Your task to perform on an android device: Set an alarm for 12pm Image 0: 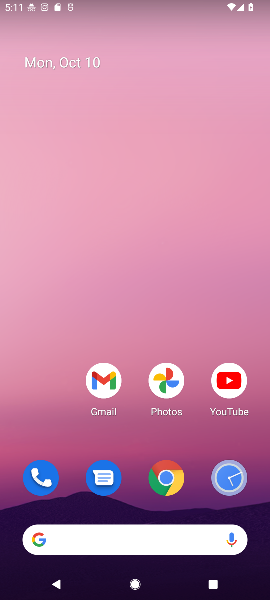
Step 0: drag from (135, 514) to (239, 470)
Your task to perform on an android device: Set an alarm for 12pm Image 1: 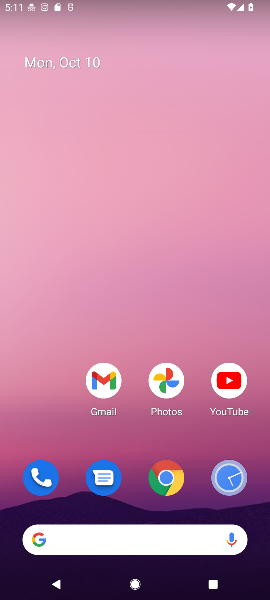
Step 1: click (239, 470)
Your task to perform on an android device: Set an alarm for 12pm Image 2: 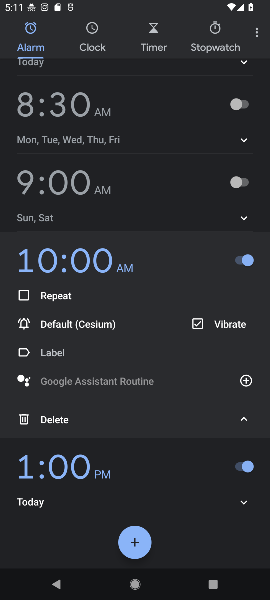
Step 2: click (140, 539)
Your task to perform on an android device: Set an alarm for 12pm Image 3: 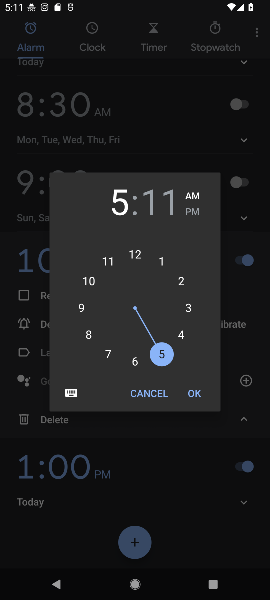
Step 3: click (135, 249)
Your task to perform on an android device: Set an alarm for 12pm Image 4: 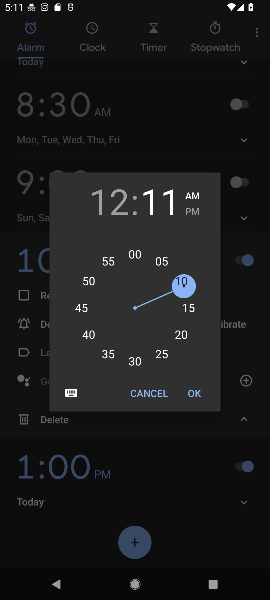
Step 4: click (135, 249)
Your task to perform on an android device: Set an alarm for 12pm Image 5: 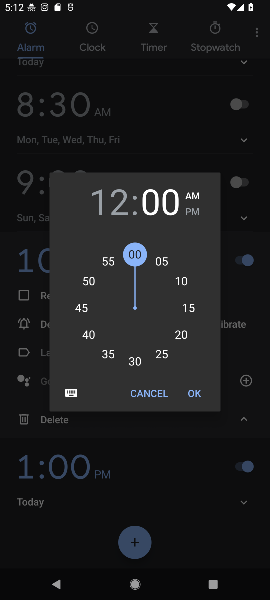
Step 5: click (200, 212)
Your task to perform on an android device: Set an alarm for 12pm Image 6: 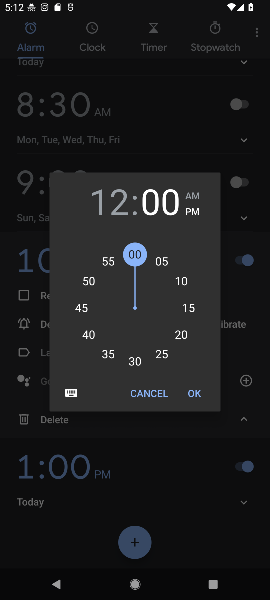
Step 6: click (199, 394)
Your task to perform on an android device: Set an alarm for 12pm Image 7: 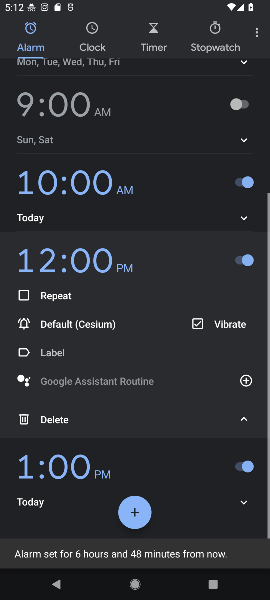
Step 7: task complete